Your task to perform on an android device: turn on bluetooth scan Image 0: 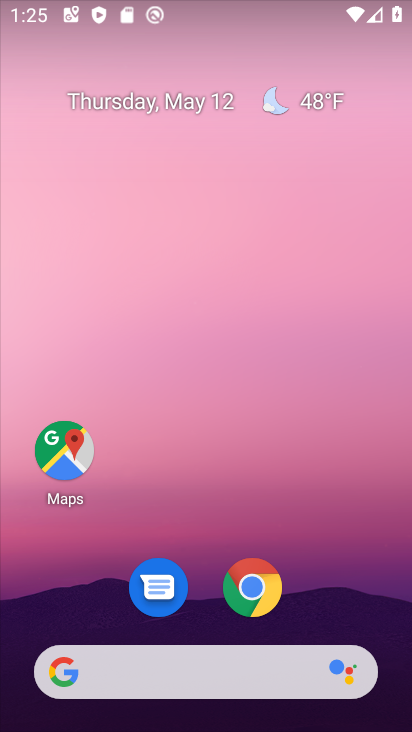
Step 0: drag from (286, 449) to (294, 159)
Your task to perform on an android device: turn on bluetooth scan Image 1: 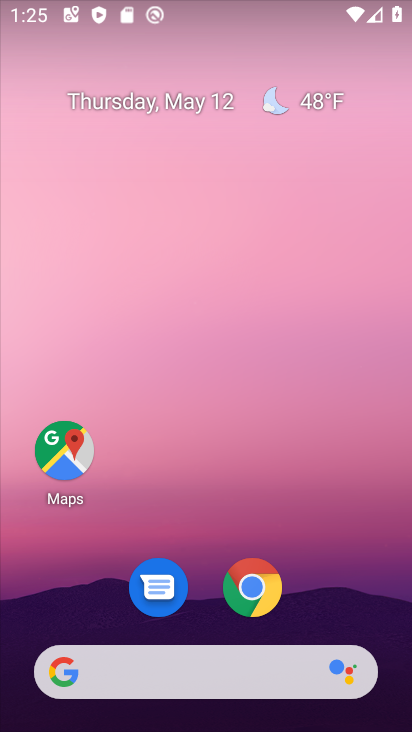
Step 1: drag from (169, 657) to (208, 160)
Your task to perform on an android device: turn on bluetooth scan Image 2: 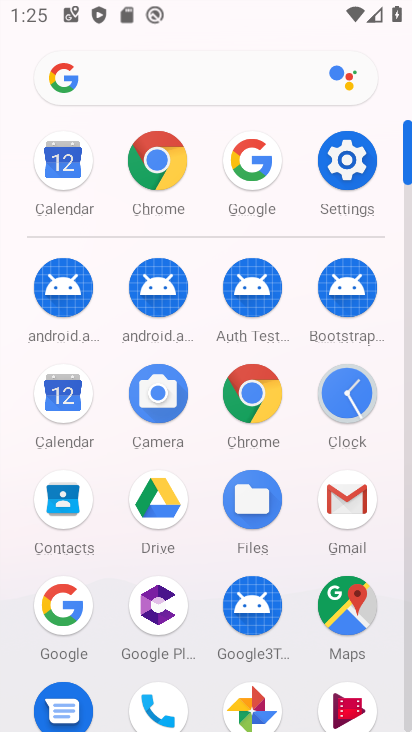
Step 2: click (363, 179)
Your task to perform on an android device: turn on bluetooth scan Image 3: 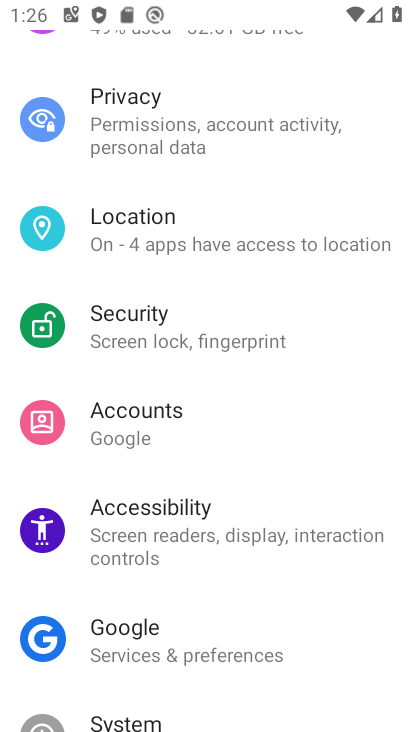
Step 3: drag from (219, 301) to (197, 665)
Your task to perform on an android device: turn on bluetooth scan Image 4: 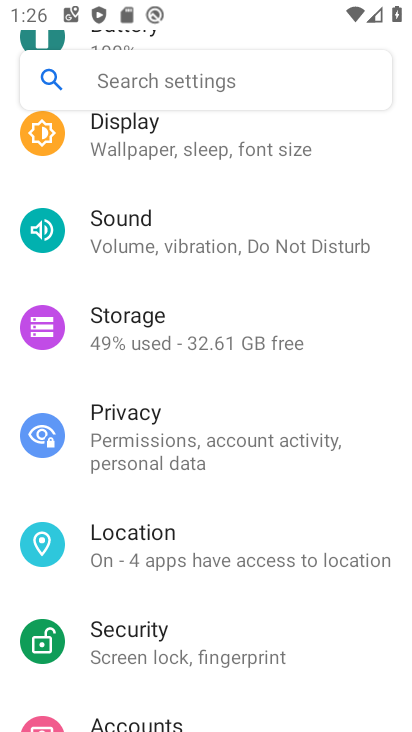
Step 4: drag from (297, 264) to (282, 673)
Your task to perform on an android device: turn on bluetooth scan Image 5: 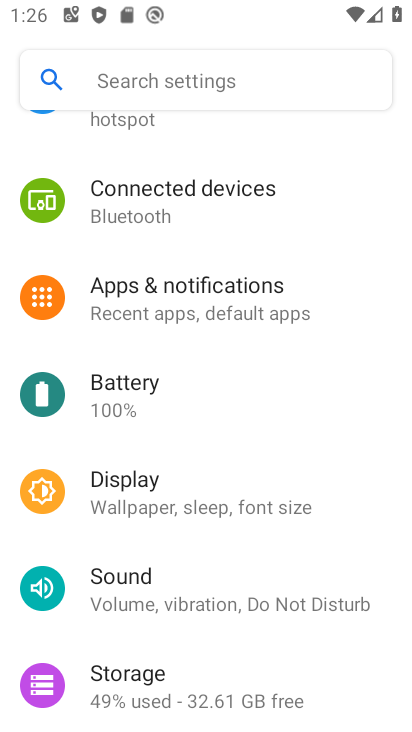
Step 5: click (246, 196)
Your task to perform on an android device: turn on bluetooth scan Image 6: 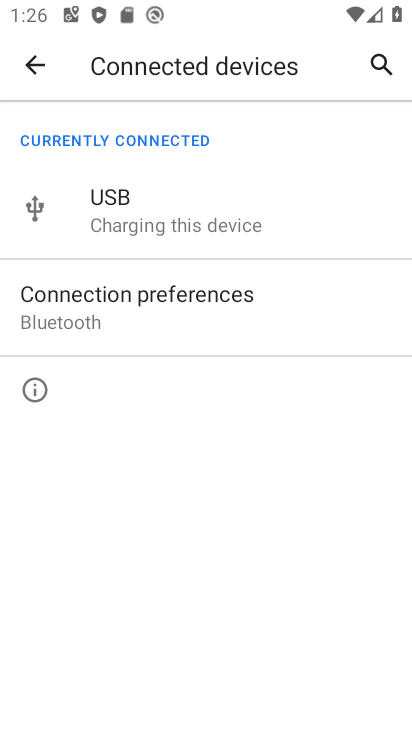
Step 6: click (163, 270)
Your task to perform on an android device: turn on bluetooth scan Image 7: 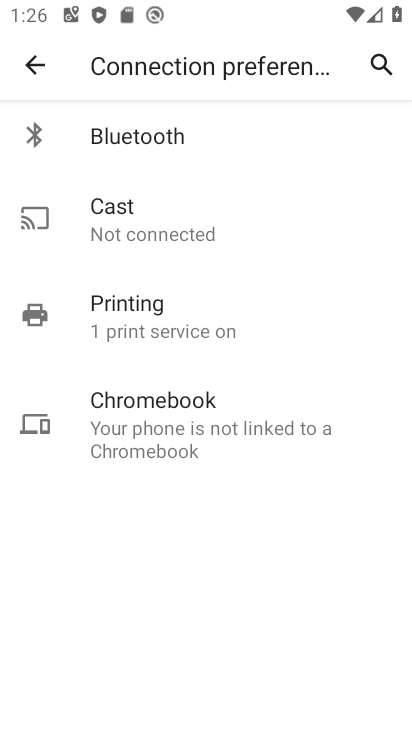
Step 7: click (215, 121)
Your task to perform on an android device: turn on bluetooth scan Image 8: 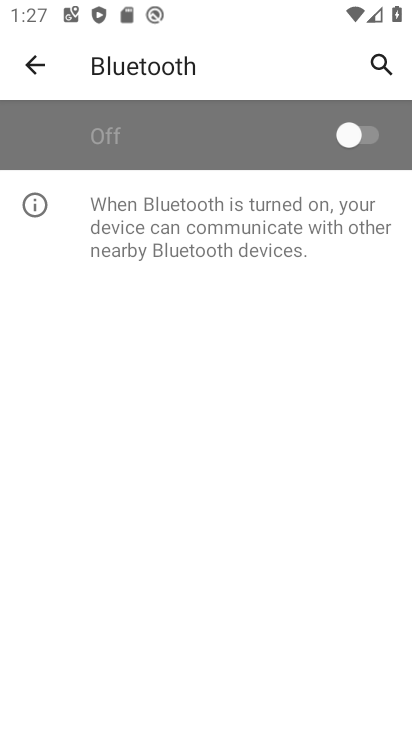
Step 8: click (379, 131)
Your task to perform on an android device: turn on bluetooth scan Image 9: 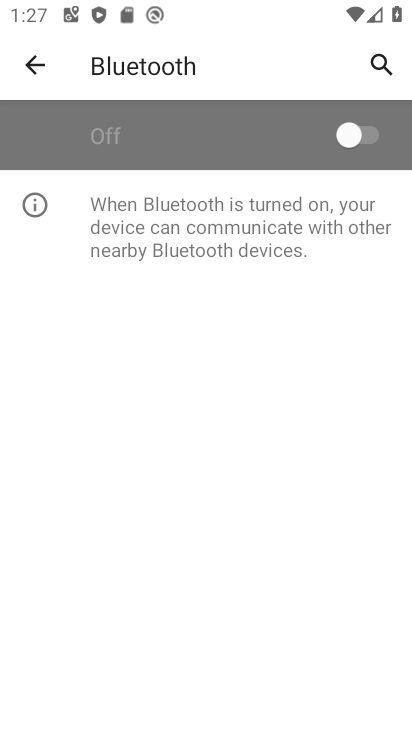
Step 9: task complete